Your task to perform on an android device: all mails in gmail Image 0: 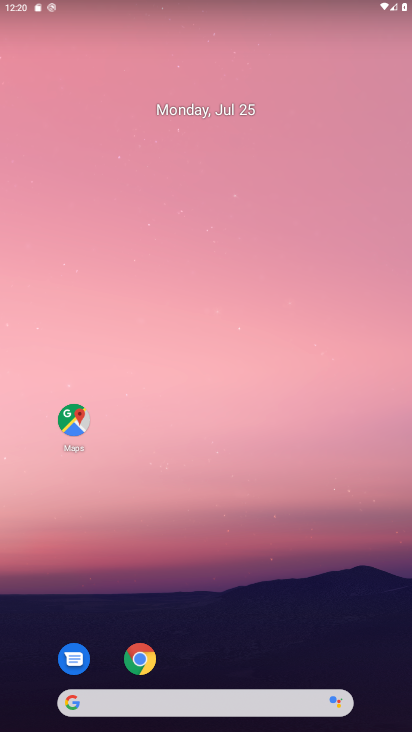
Step 0: drag from (229, 673) to (223, 48)
Your task to perform on an android device: all mails in gmail Image 1: 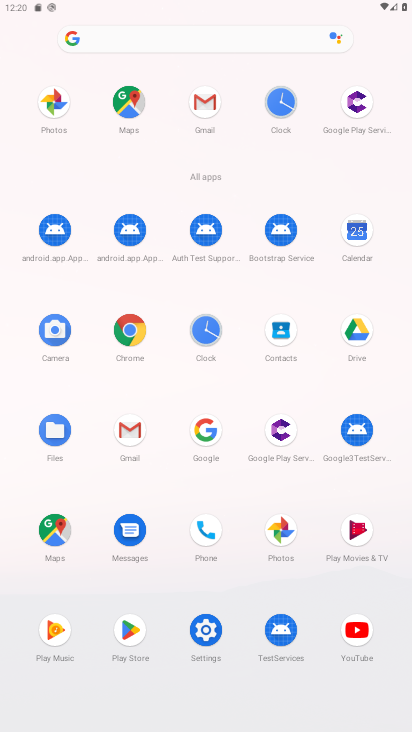
Step 1: click (204, 96)
Your task to perform on an android device: all mails in gmail Image 2: 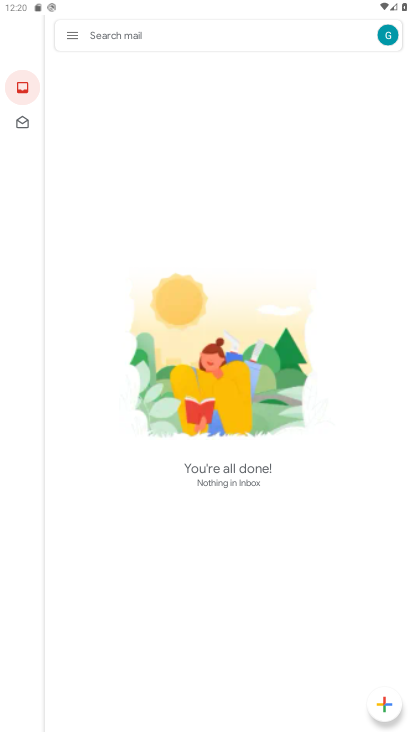
Step 2: click (25, 86)
Your task to perform on an android device: all mails in gmail Image 3: 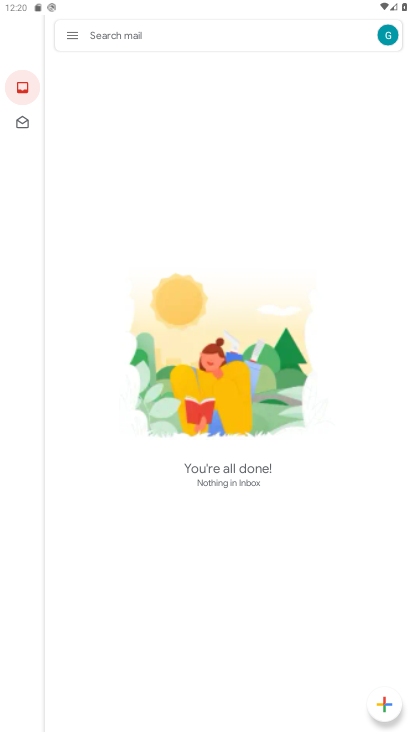
Step 3: click (20, 87)
Your task to perform on an android device: all mails in gmail Image 4: 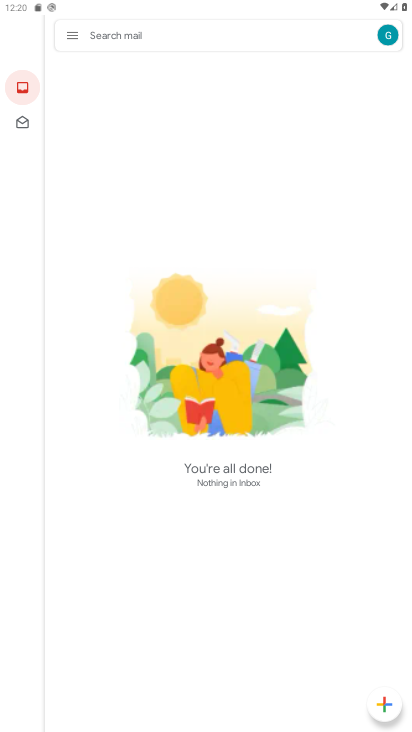
Step 4: click (21, 85)
Your task to perform on an android device: all mails in gmail Image 5: 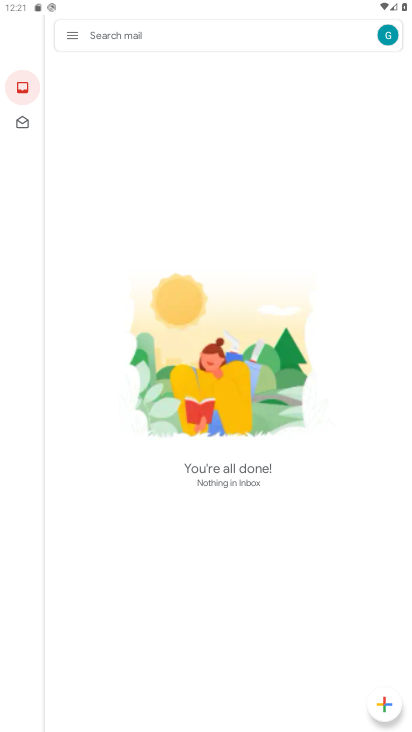
Step 5: click (65, 31)
Your task to perform on an android device: all mails in gmail Image 6: 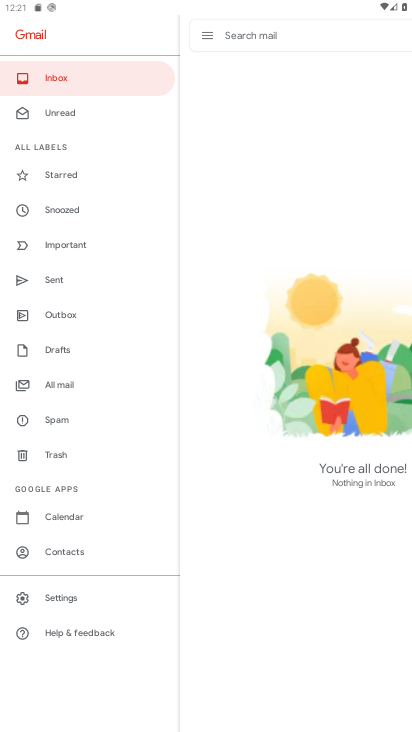
Step 6: click (82, 381)
Your task to perform on an android device: all mails in gmail Image 7: 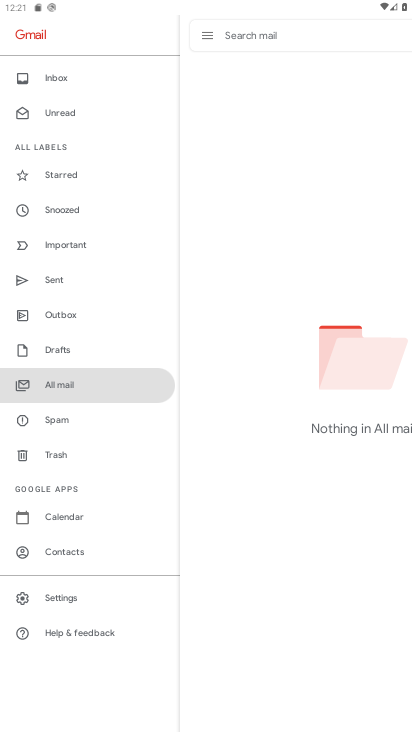
Step 7: click (207, 34)
Your task to perform on an android device: all mails in gmail Image 8: 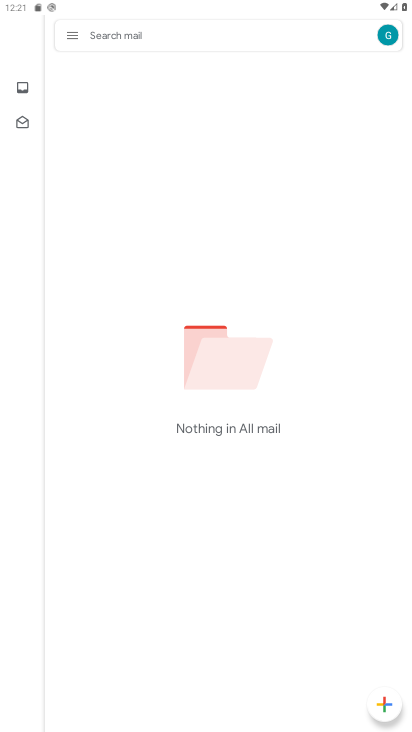
Step 8: task complete